Your task to perform on an android device: Open Google Chrome and click the shortcut for Amazon.com Image 0: 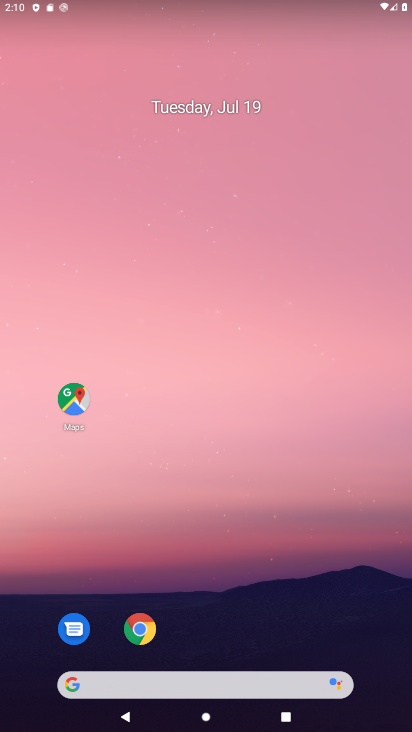
Step 0: click (147, 639)
Your task to perform on an android device: Open Google Chrome and click the shortcut for Amazon.com Image 1: 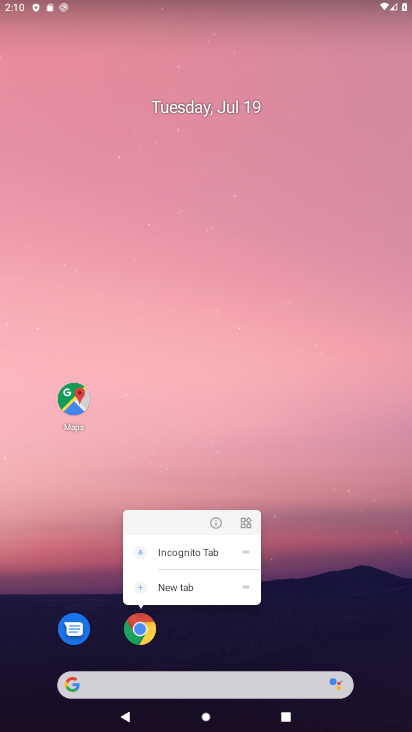
Step 1: click (143, 633)
Your task to perform on an android device: Open Google Chrome and click the shortcut for Amazon.com Image 2: 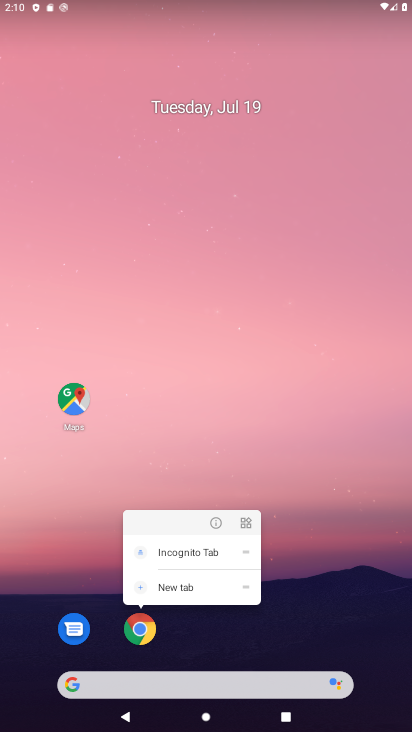
Step 2: click (143, 633)
Your task to perform on an android device: Open Google Chrome and click the shortcut for Amazon.com Image 3: 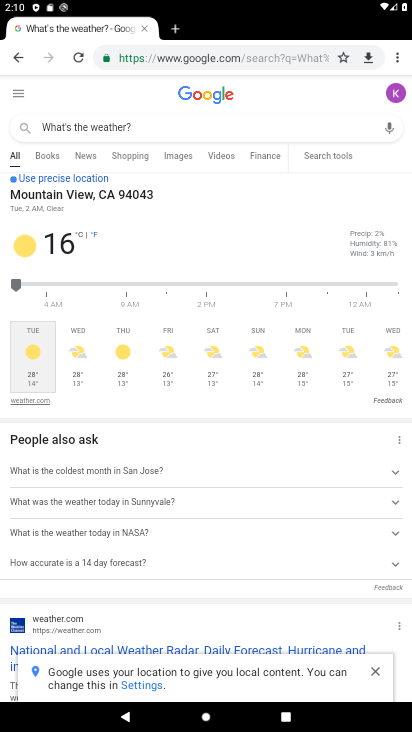
Step 3: click (399, 55)
Your task to perform on an android device: Open Google Chrome and click the shortcut for Amazon.com Image 4: 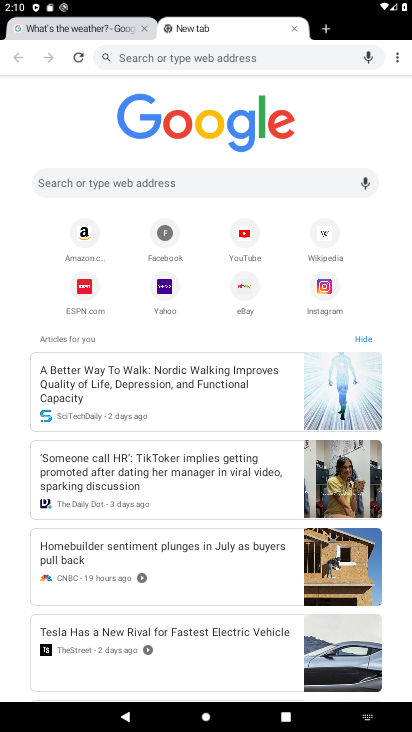
Step 4: click (91, 239)
Your task to perform on an android device: Open Google Chrome and click the shortcut for Amazon.com Image 5: 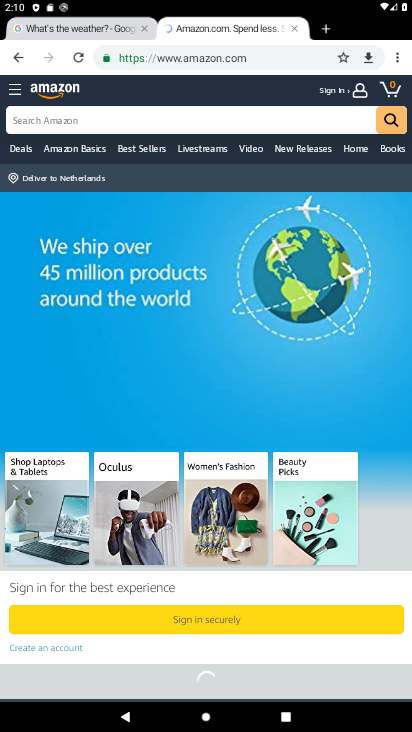
Step 5: task complete